Your task to perform on an android device: turn on wifi Image 0: 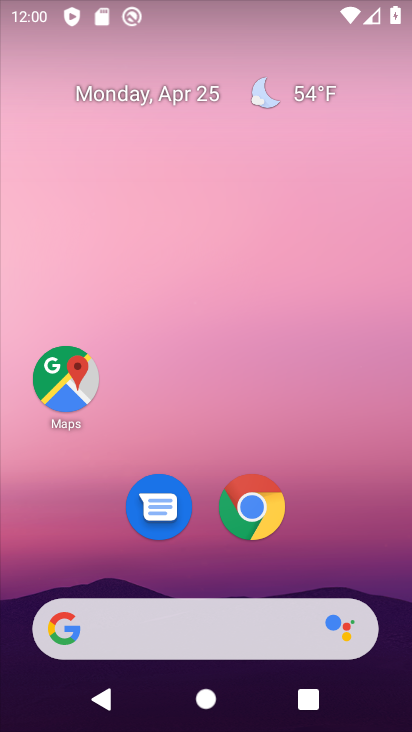
Step 0: drag from (348, 514) to (281, 42)
Your task to perform on an android device: turn on wifi Image 1: 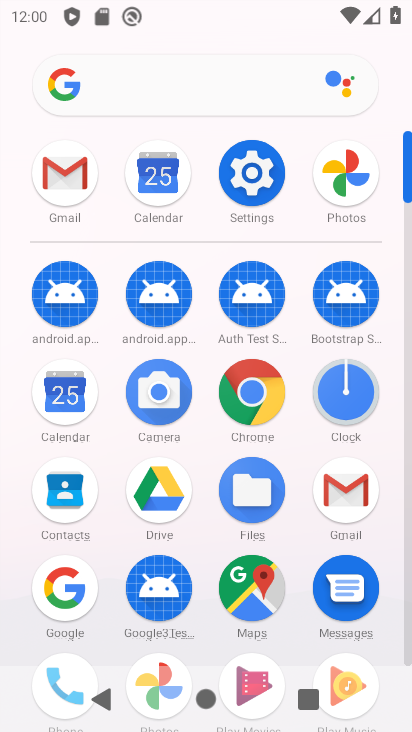
Step 1: drag from (1, 535) to (0, 279)
Your task to perform on an android device: turn on wifi Image 2: 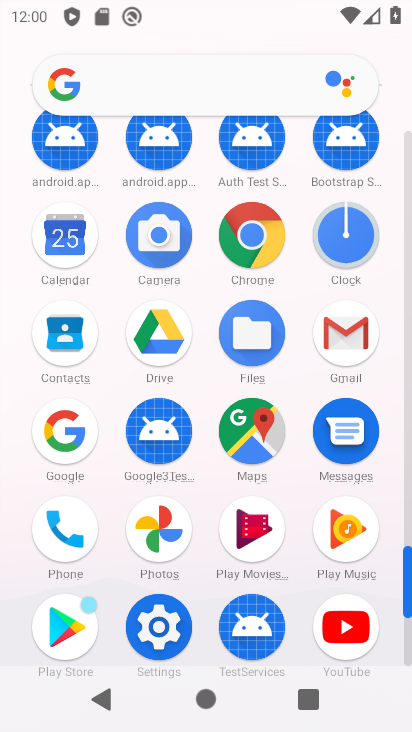
Step 2: click (161, 625)
Your task to perform on an android device: turn on wifi Image 3: 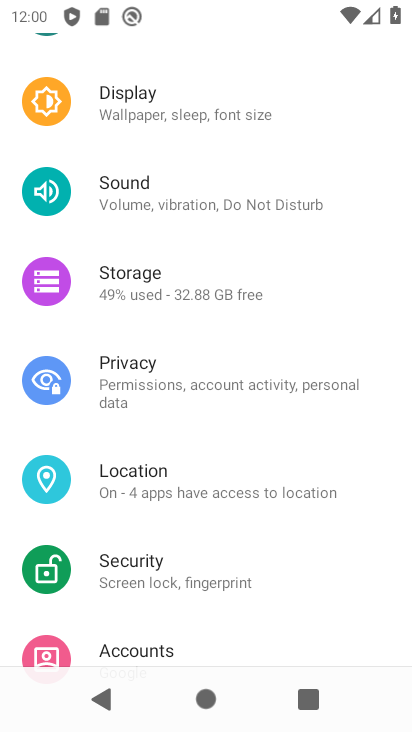
Step 3: drag from (254, 322) to (234, 691)
Your task to perform on an android device: turn on wifi Image 4: 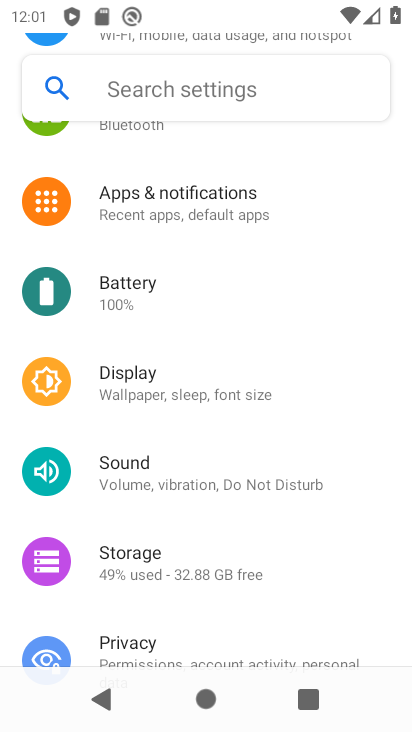
Step 4: click (234, 500)
Your task to perform on an android device: turn on wifi Image 5: 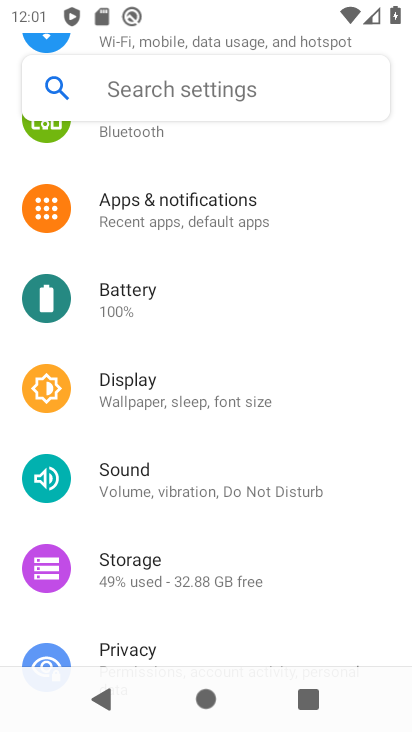
Step 5: drag from (245, 234) to (238, 482)
Your task to perform on an android device: turn on wifi Image 6: 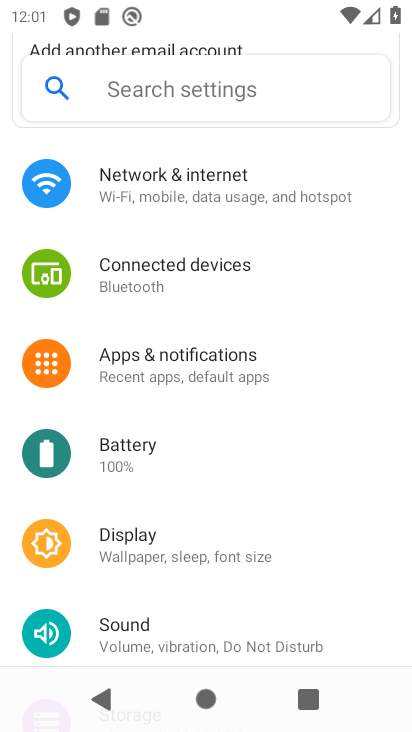
Step 6: drag from (259, 237) to (239, 558)
Your task to perform on an android device: turn on wifi Image 7: 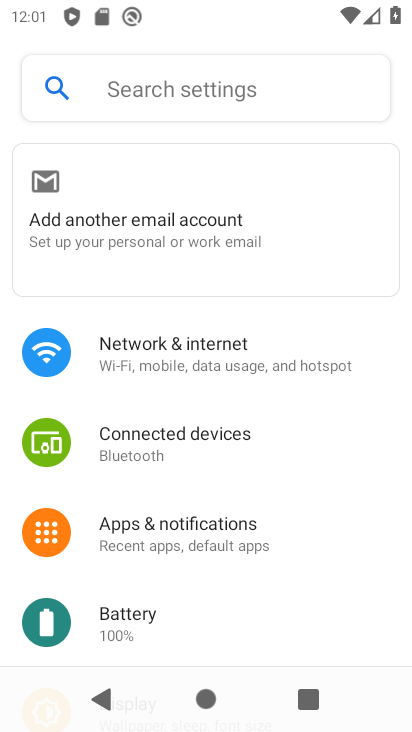
Step 7: click (185, 363)
Your task to perform on an android device: turn on wifi Image 8: 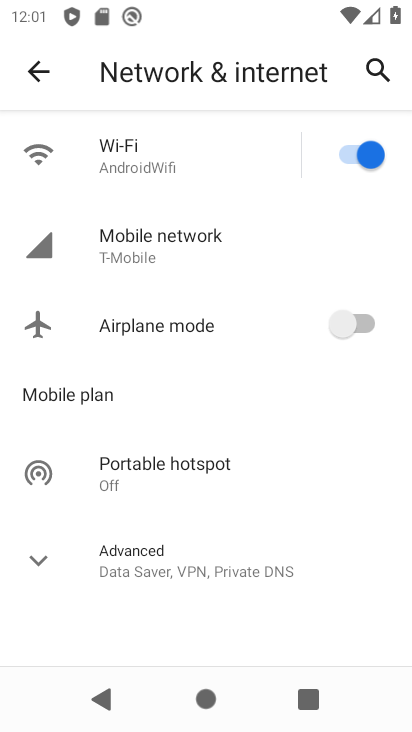
Step 8: task complete